Your task to perform on an android device: Do I have any events today? Image 0: 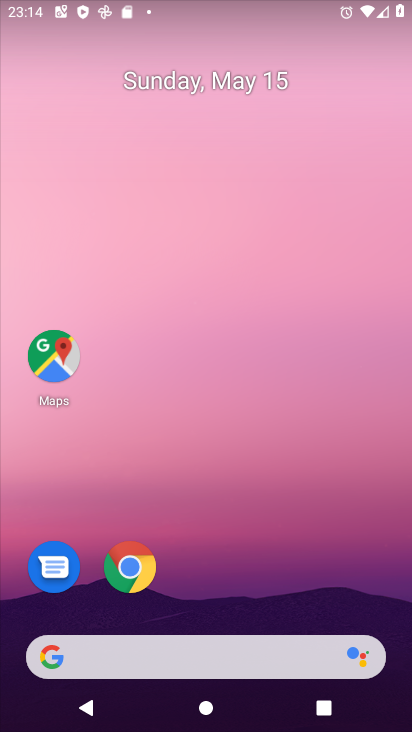
Step 0: drag from (260, 716) to (260, 148)
Your task to perform on an android device: Do I have any events today? Image 1: 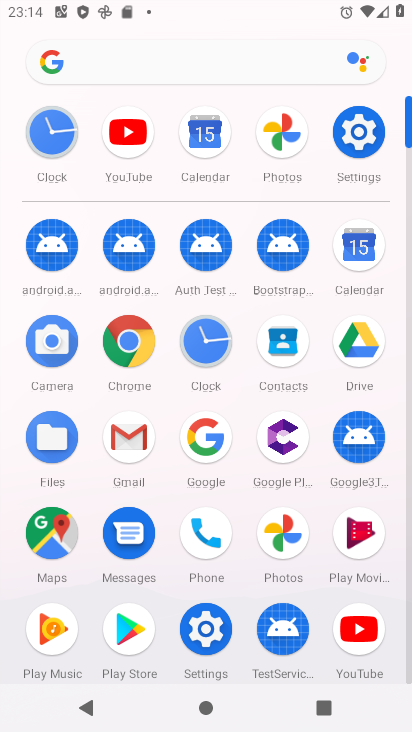
Step 1: click (358, 265)
Your task to perform on an android device: Do I have any events today? Image 2: 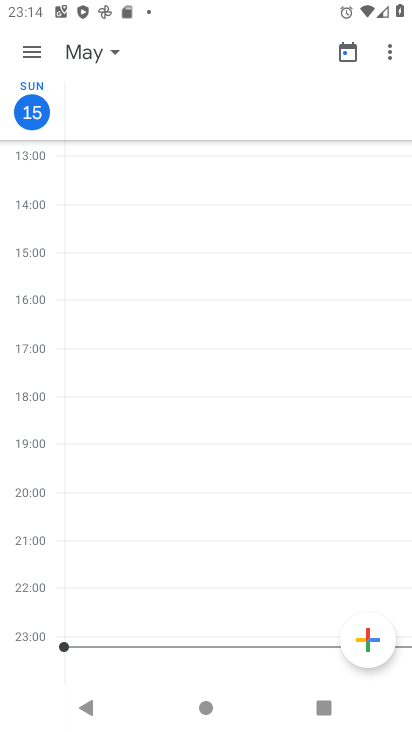
Step 2: task complete